Your task to perform on an android device: Open battery settings Image 0: 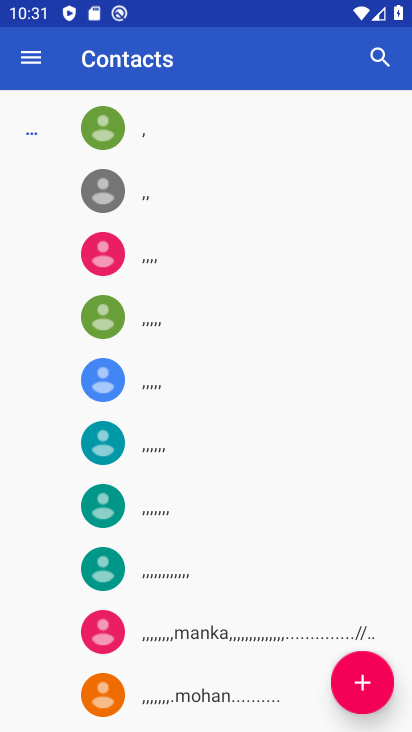
Step 0: press home button
Your task to perform on an android device: Open battery settings Image 1: 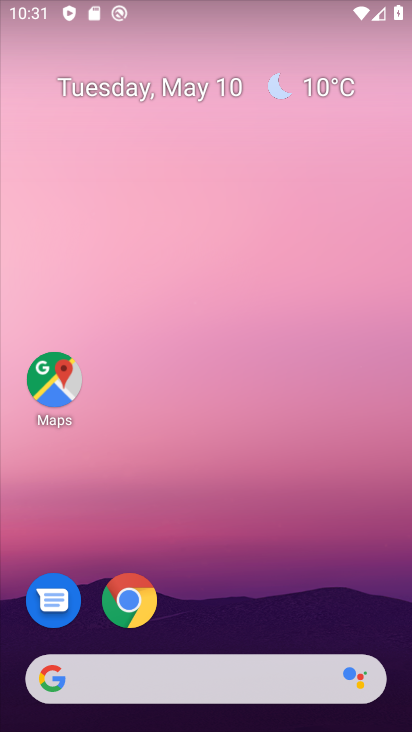
Step 1: drag from (279, 495) to (234, 161)
Your task to perform on an android device: Open battery settings Image 2: 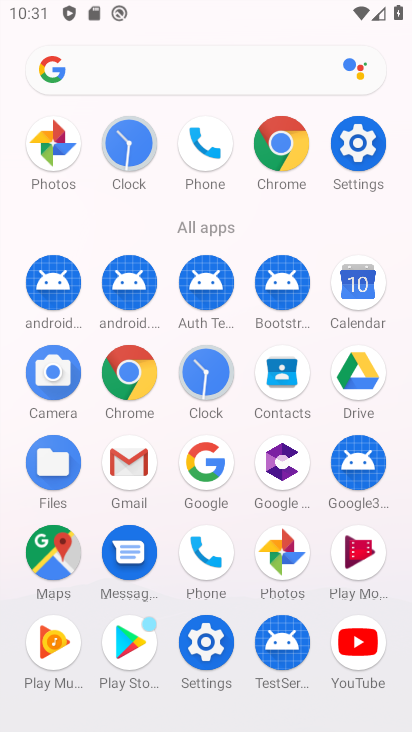
Step 2: click (353, 172)
Your task to perform on an android device: Open battery settings Image 3: 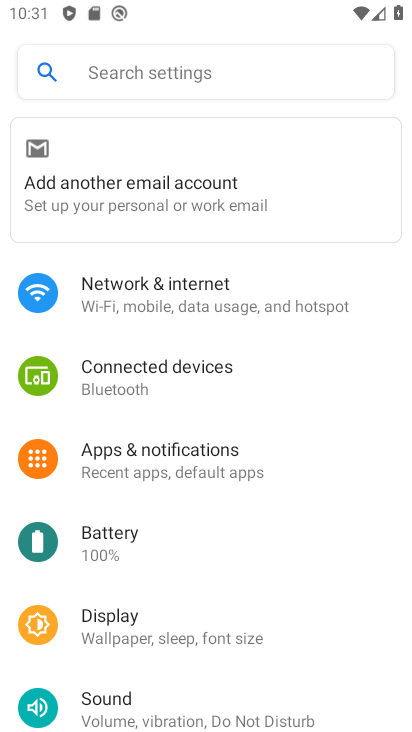
Step 3: click (182, 544)
Your task to perform on an android device: Open battery settings Image 4: 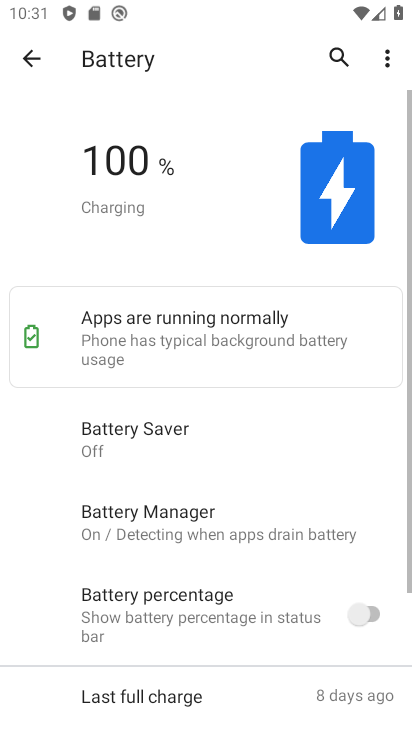
Step 4: task complete